Your task to perform on an android device: Search for seafood restaurants on Google Maps Image 0: 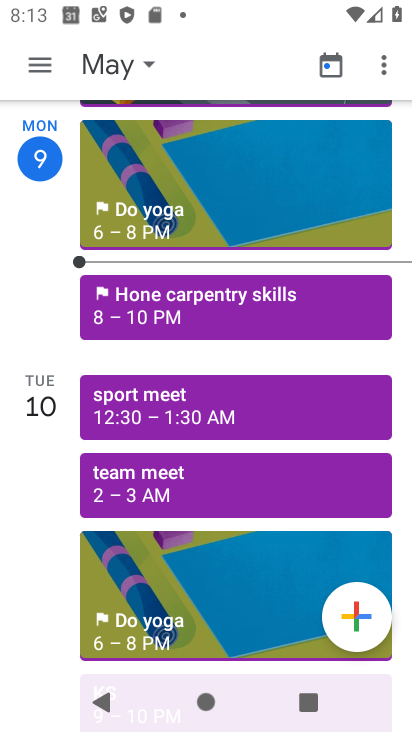
Step 0: press home button
Your task to perform on an android device: Search for seafood restaurants on Google Maps Image 1: 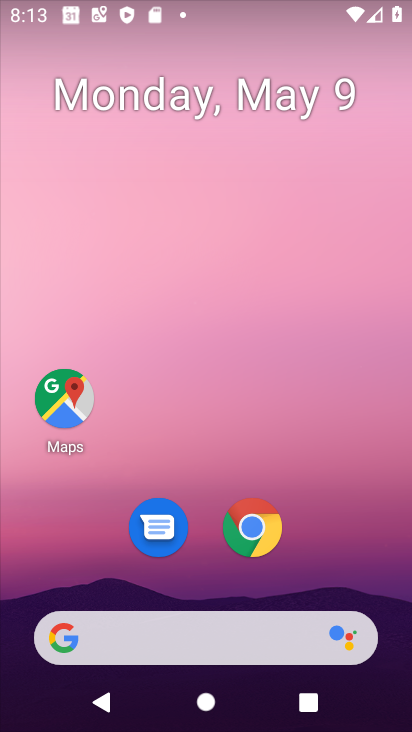
Step 1: click (65, 398)
Your task to perform on an android device: Search for seafood restaurants on Google Maps Image 2: 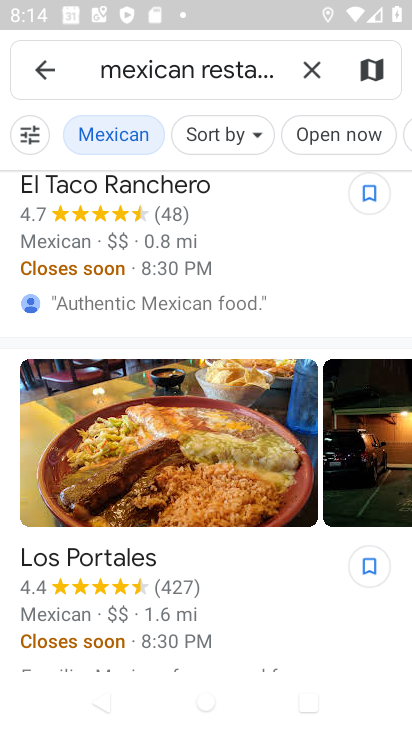
Step 2: click (308, 70)
Your task to perform on an android device: Search for seafood restaurants on Google Maps Image 3: 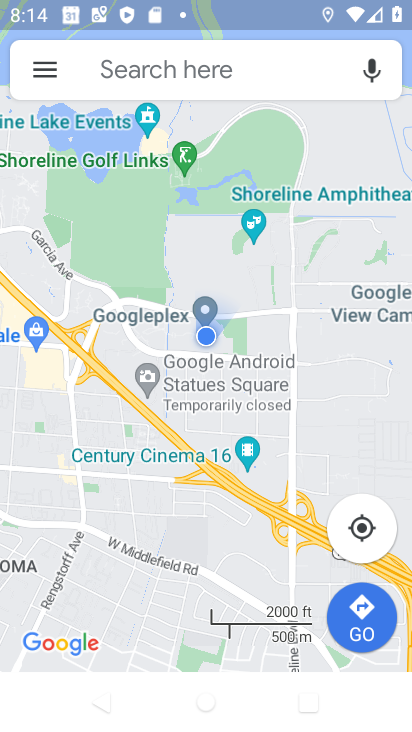
Step 3: click (189, 67)
Your task to perform on an android device: Search for seafood restaurants on Google Maps Image 4: 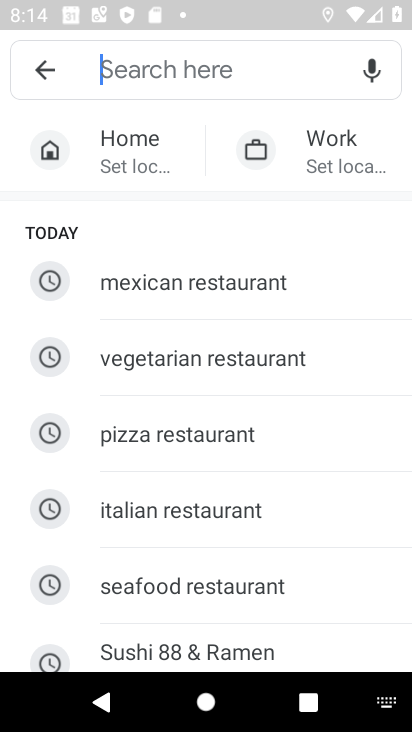
Step 4: click (136, 64)
Your task to perform on an android device: Search for seafood restaurants on Google Maps Image 5: 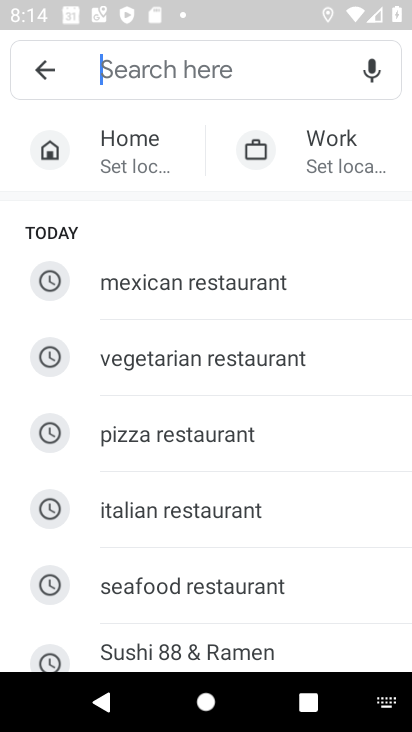
Step 5: click (315, 570)
Your task to perform on an android device: Search for seafood restaurants on Google Maps Image 6: 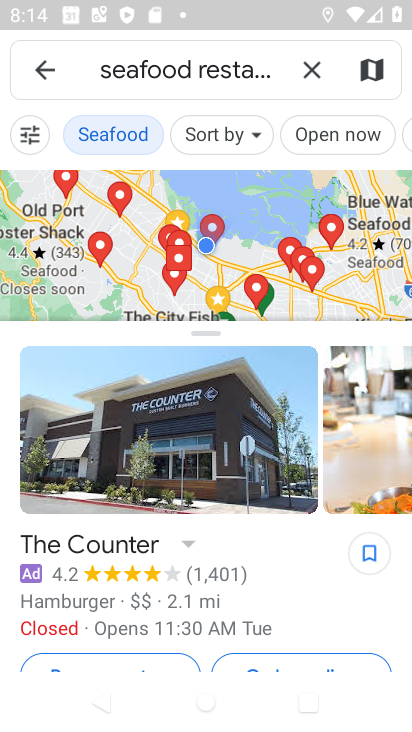
Step 6: task complete